Your task to perform on an android device: Go to Android settings Image 0: 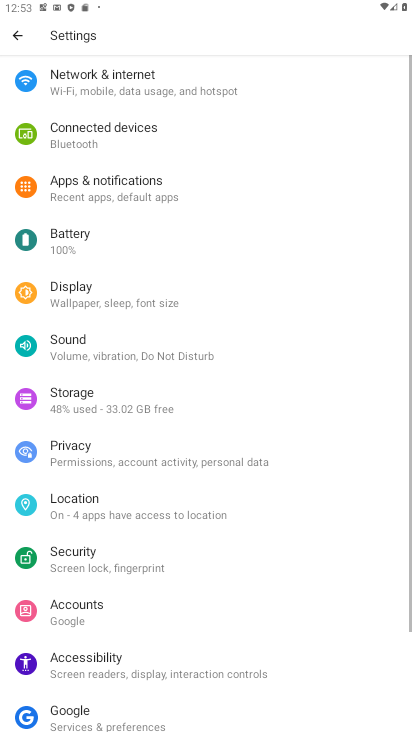
Step 0: click (111, 697)
Your task to perform on an android device: Go to Android settings Image 1: 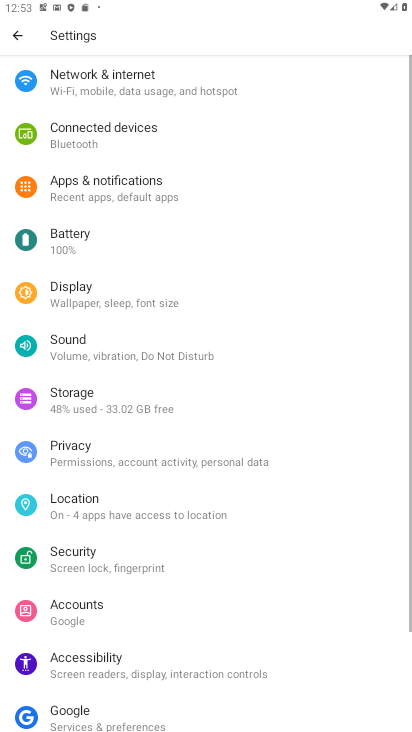
Step 1: task complete